Your task to perform on an android device: Search for pizza restaurants on Maps Image 0: 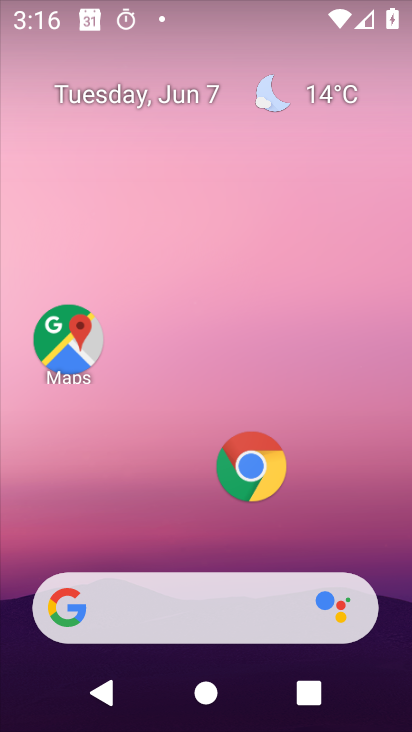
Step 0: click (85, 327)
Your task to perform on an android device: Search for pizza restaurants on Maps Image 1: 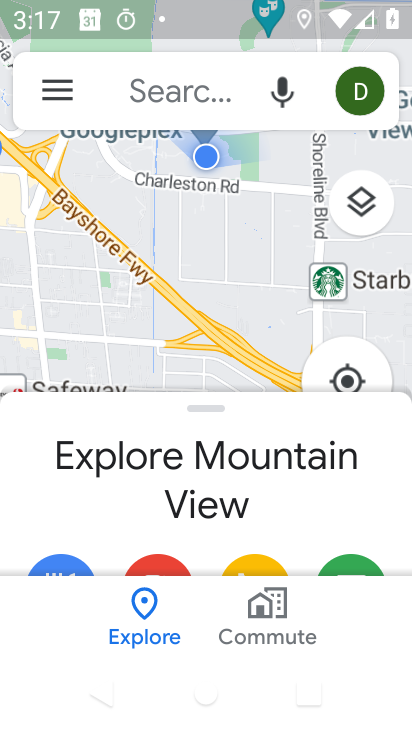
Step 1: click (151, 108)
Your task to perform on an android device: Search for pizza restaurants on Maps Image 2: 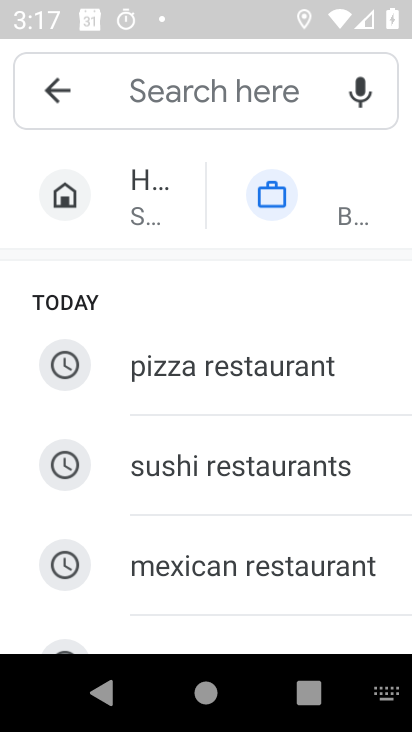
Step 2: click (247, 377)
Your task to perform on an android device: Search for pizza restaurants on Maps Image 3: 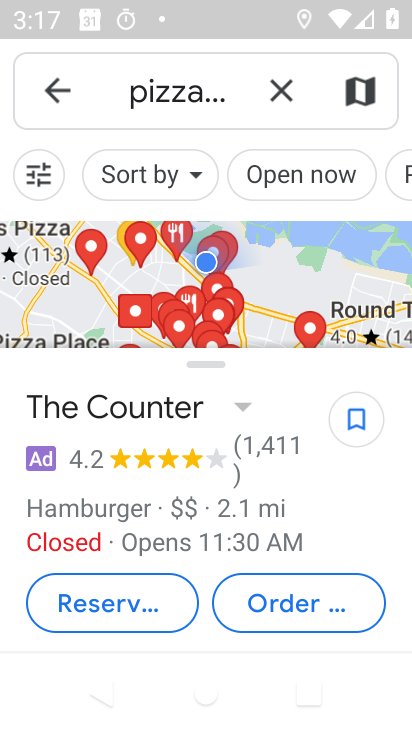
Step 3: task complete